Your task to perform on an android device: make emails show in primary in the gmail app Image 0: 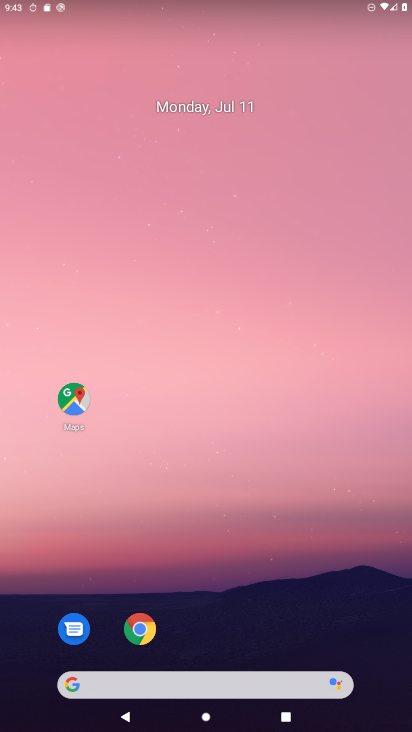
Step 0: click (336, 377)
Your task to perform on an android device: make emails show in primary in the gmail app Image 1: 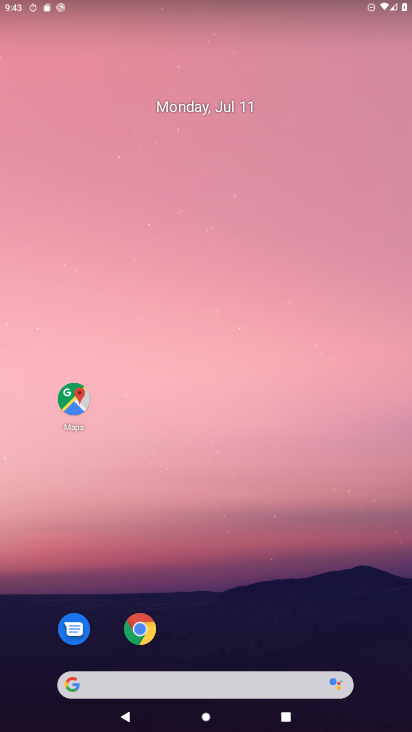
Step 1: drag from (223, 635) to (228, 5)
Your task to perform on an android device: make emails show in primary in the gmail app Image 2: 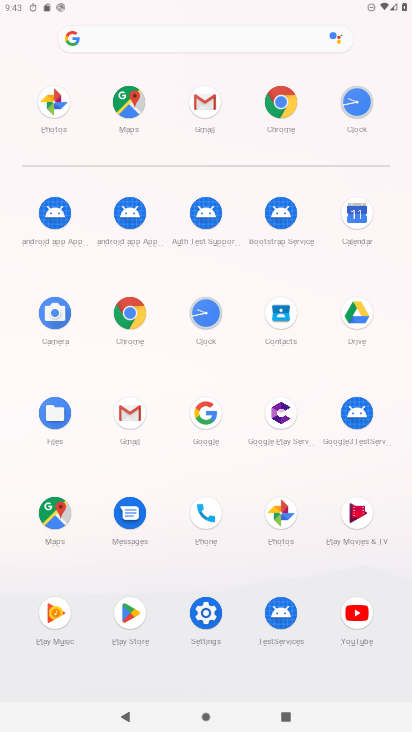
Step 2: click (201, 92)
Your task to perform on an android device: make emails show in primary in the gmail app Image 3: 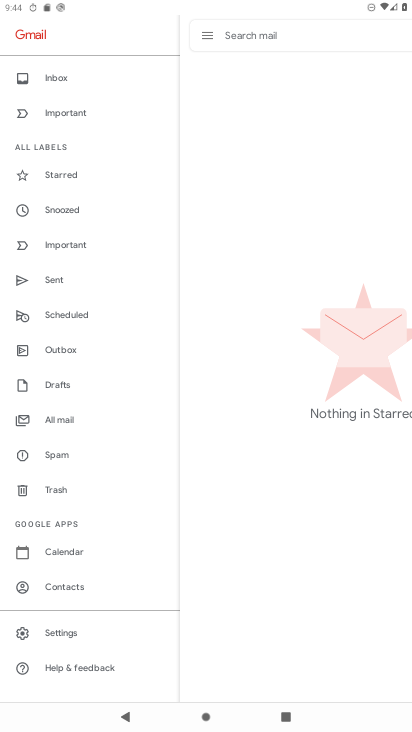
Step 3: task complete